Your task to perform on an android device: change the upload size in google photos Image 0: 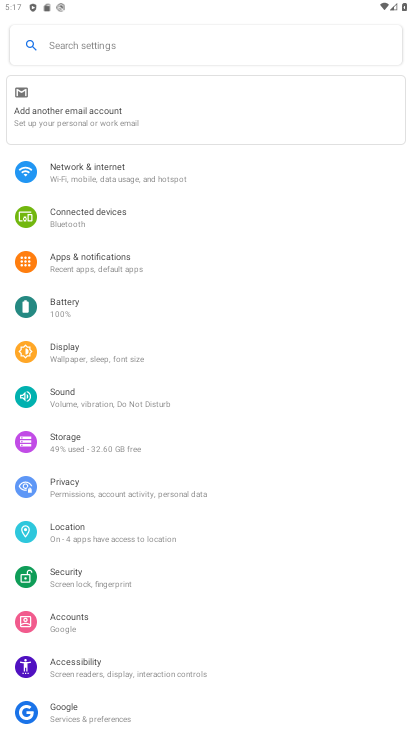
Step 0: press home button
Your task to perform on an android device: change the upload size in google photos Image 1: 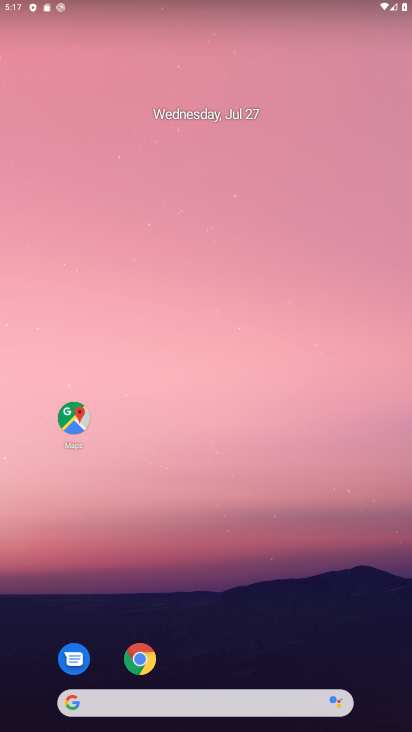
Step 1: drag from (326, 633) to (345, 104)
Your task to perform on an android device: change the upload size in google photos Image 2: 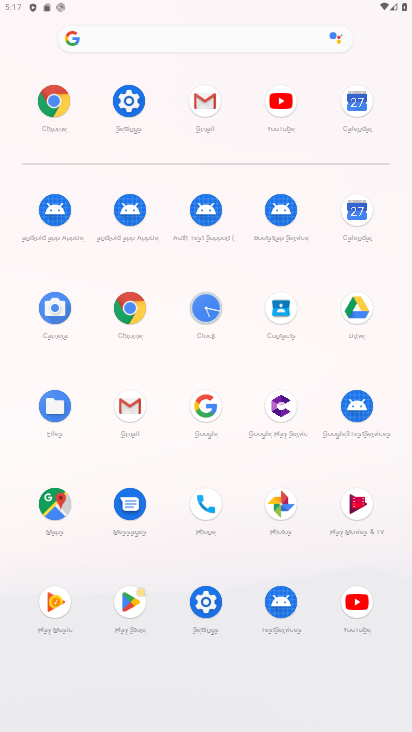
Step 2: click (280, 500)
Your task to perform on an android device: change the upload size in google photos Image 3: 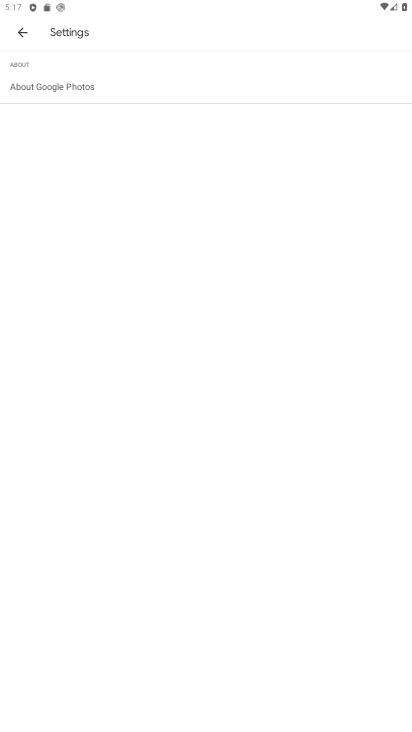
Step 3: click (16, 29)
Your task to perform on an android device: change the upload size in google photos Image 4: 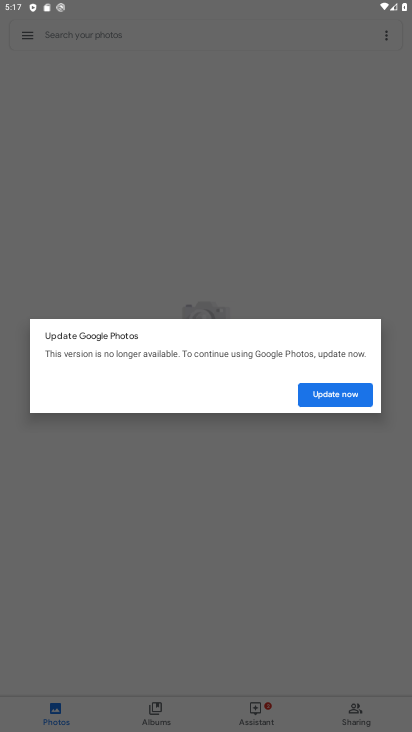
Step 4: click (351, 388)
Your task to perform on an android device: change the upload size in google photos Image 5: 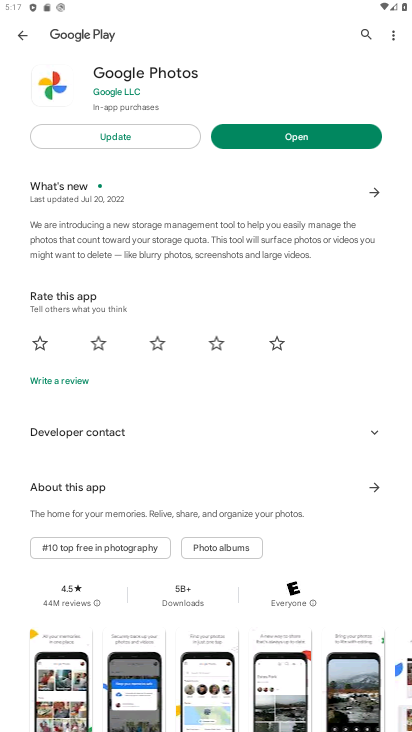
Step 5: click (138, 140)
Your task to perform on an android device: change the upload size in google photos Image 6: 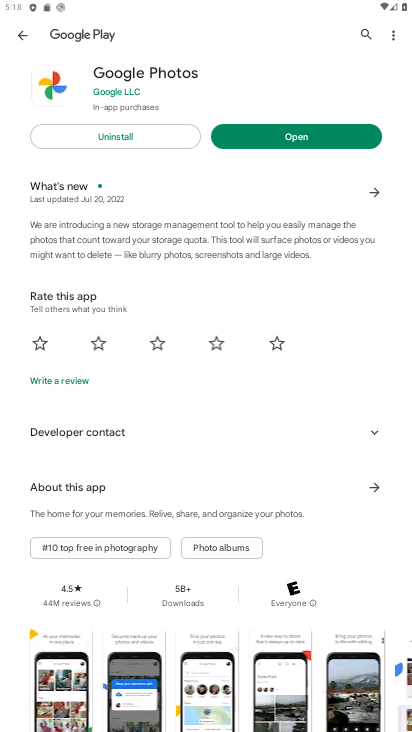
Step 6: click (269, 124)
Your task to perform on an android device: change the upload size in google photos Image 7: 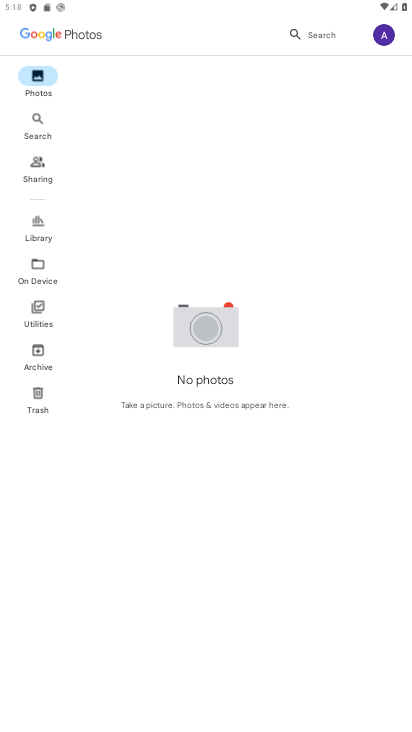
Step 7: click (377, 33)
Your task to perform on an android device: change the upload size in google photos Image 8: 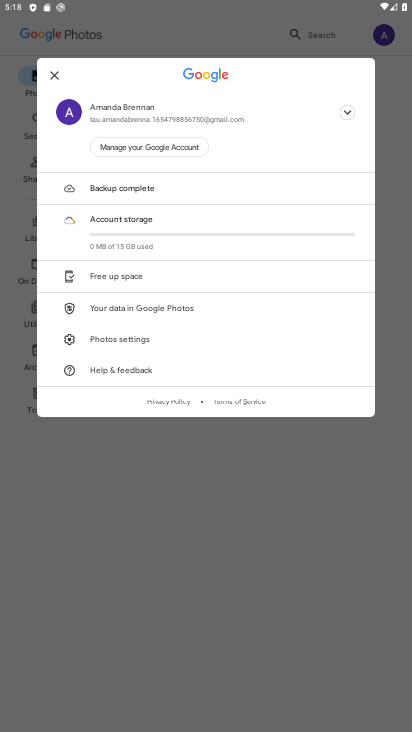
Step 8: click (130, 340)
Your task to perform on an android device: change the upload size in google photos Image 9: 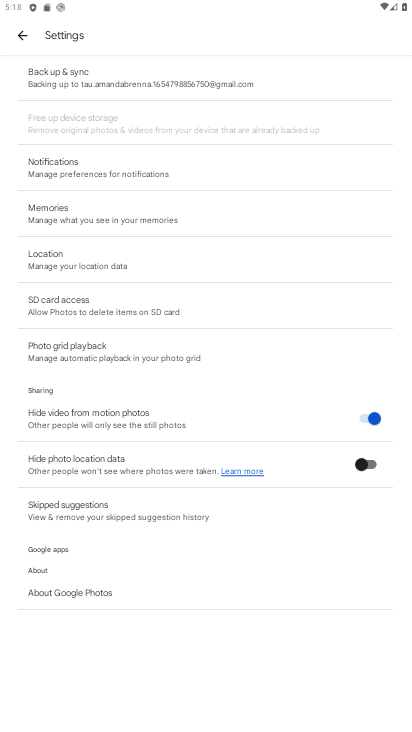
Step 9: click (91, 78)
Your task to perform on an android device: change the upload size in google photos Image 10: 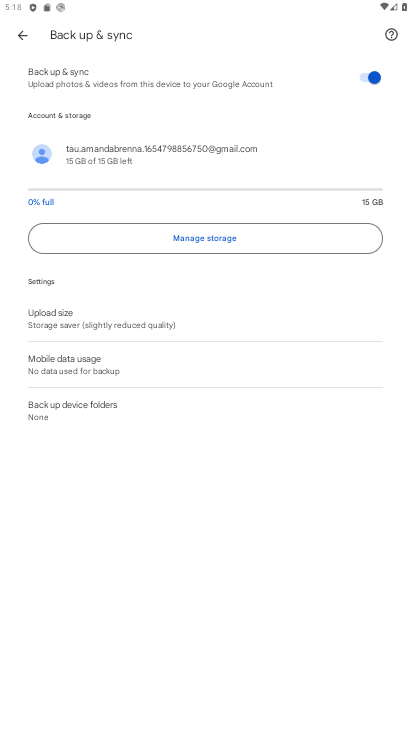
Step 10: click (52, 321)
Your task to perform on an android device: change the upload size in google photos Image 11: 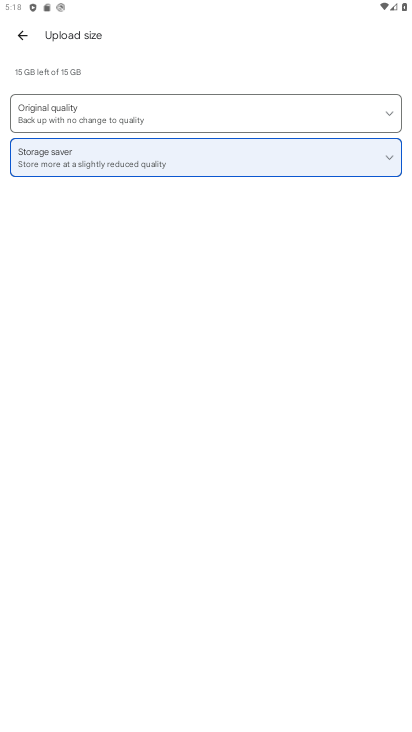
Step 11: click (87, 118)
Your task to perform on an android device: change the upload size in google photos Image 12: 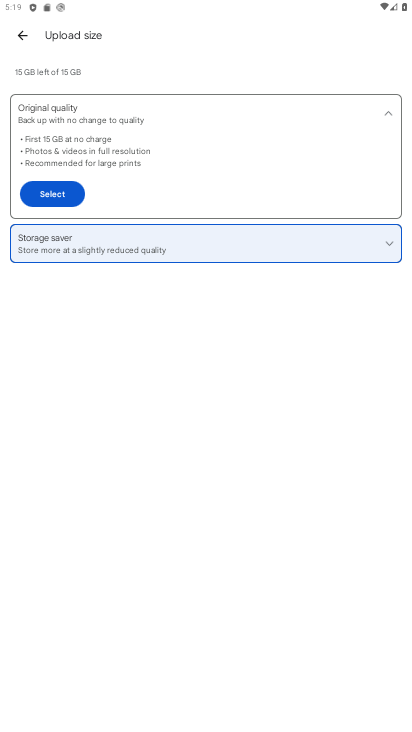
Step 12: click (57, 198)
Your task to perform on an android device: change the upload size in google photos Image 13: 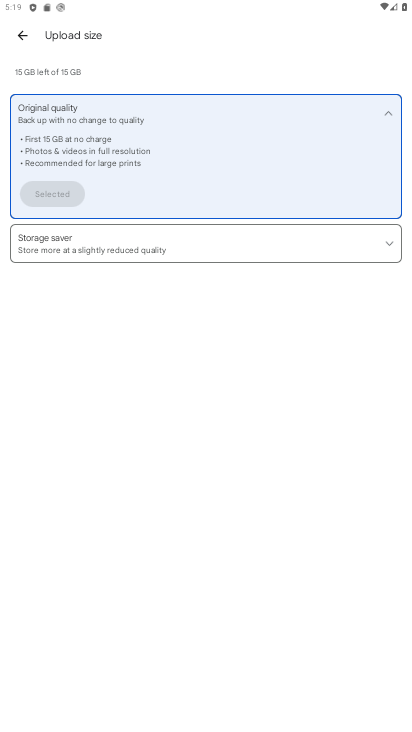
Step 13: task complete